Your task to perform on an android device: Go to network settings Image 0: 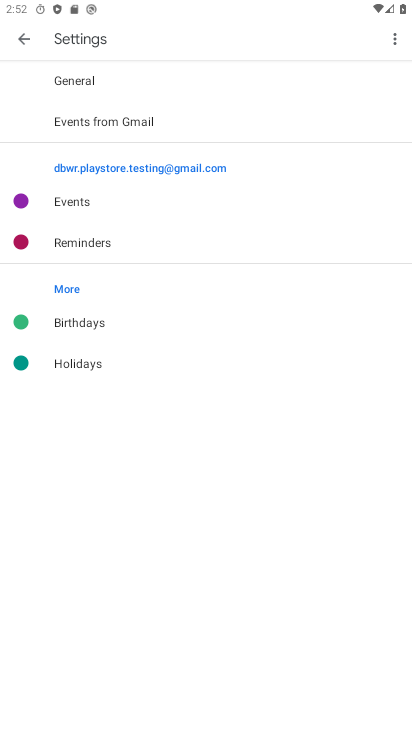
Step 0: press home button
Your task to perform on an android device: Go to network settings Image 1: 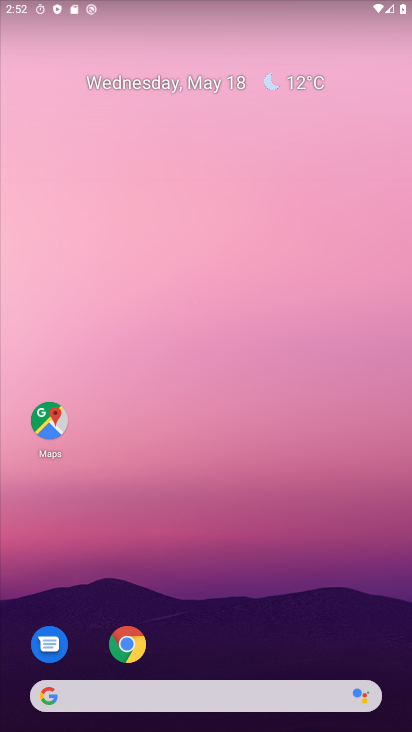
Step 1: drag from (377, 462) to (348, 215)
Your task to perform on an android device: Go to network settings Image 2: 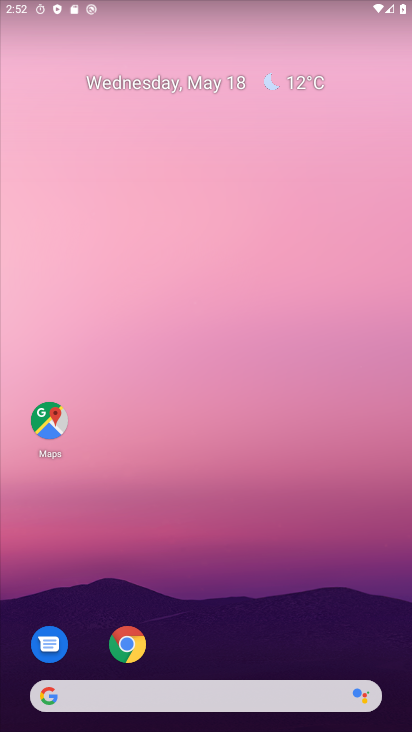
Step 2: drag from (367, 395) to (306, 75)
Your task to perform on an android device: Go to network settings Image 3: 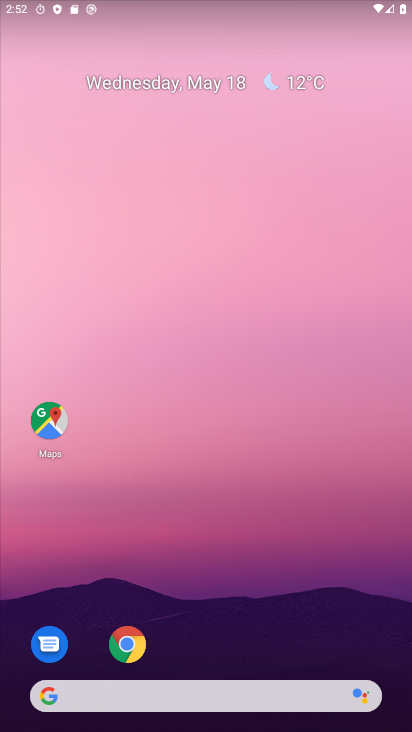
Step 3: drag from (392, 714) to (284, 1)
Your task to perform on an android device: Go to network settings Image 4: 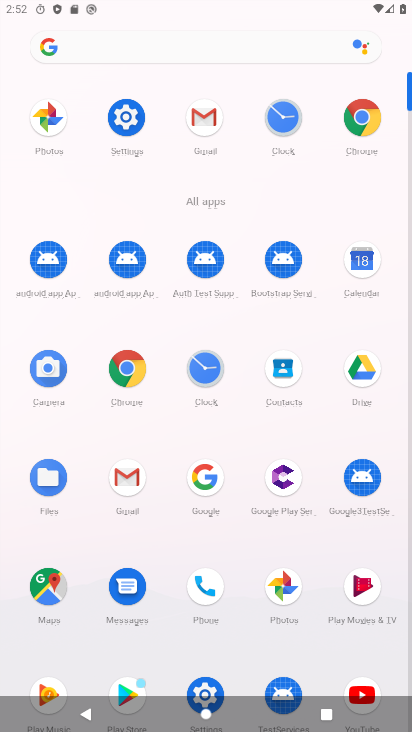
Step 4: click (121, 128)
Your task to perform on an android device: Go to network settings Image 5: 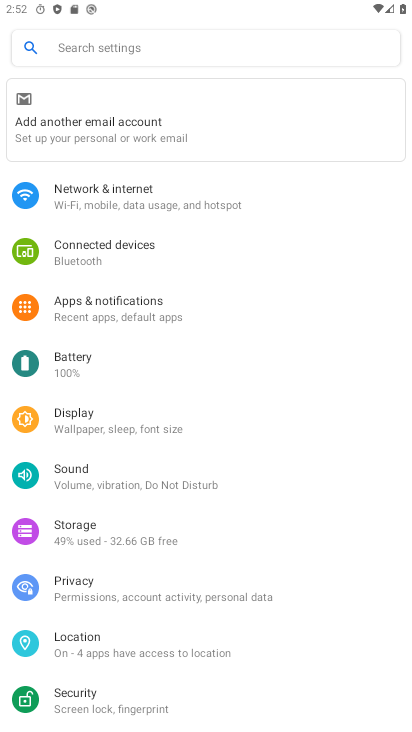
Step 5: click (87, 206)
Your task to perform on an android device: Go to network settings Image 6: 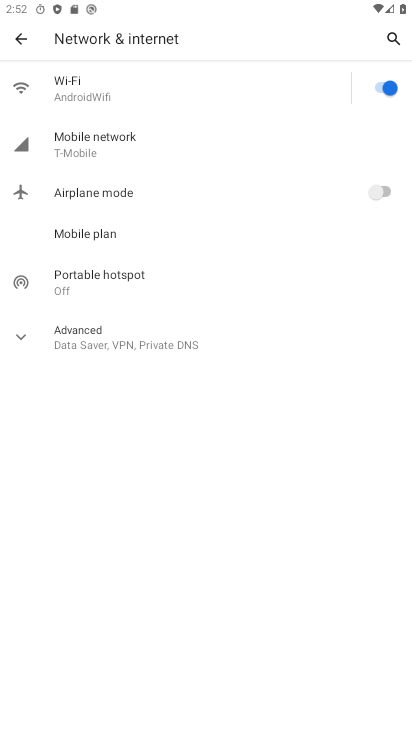
Step 6: task complete